Your task to perform on an android device: Go to notification settings Image 0: 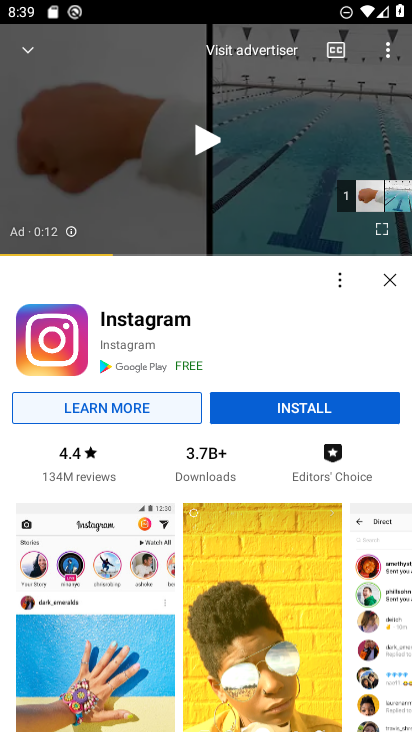
Step 0: drag from (224, 583) to (220, 371)
Your task to perform on an android device: Go to notification settings Image 1: 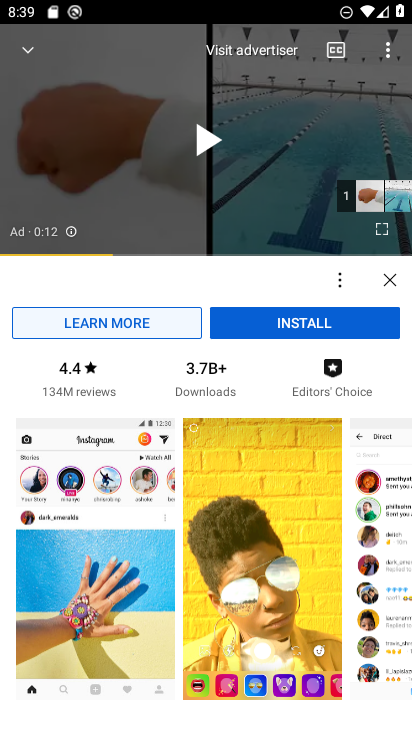
Step 1: press home button
Your task to perform on an android device: Go to notification settings Image 2: 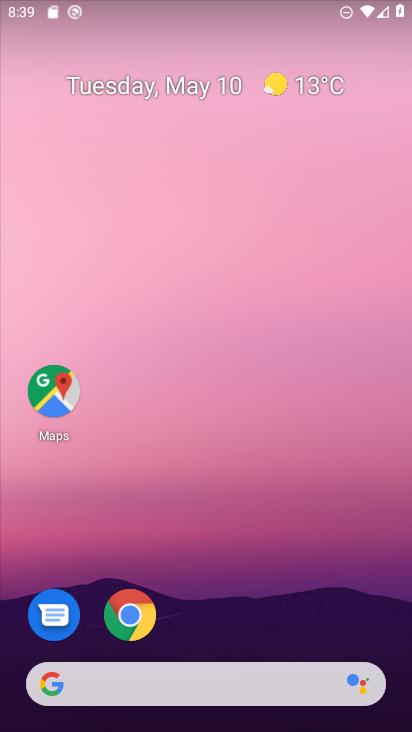
Step 2: drag from (210, 393) to (151, 74)
Your task to perform on an android device: Go to notification settings Image 3: 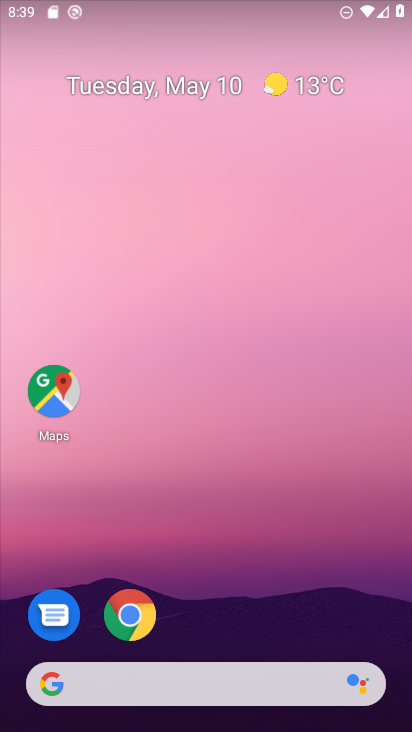
Step 3: drag from (171, 373) to (150, 29)
Your task to perform on an android device: Go to notification settings Image 4: 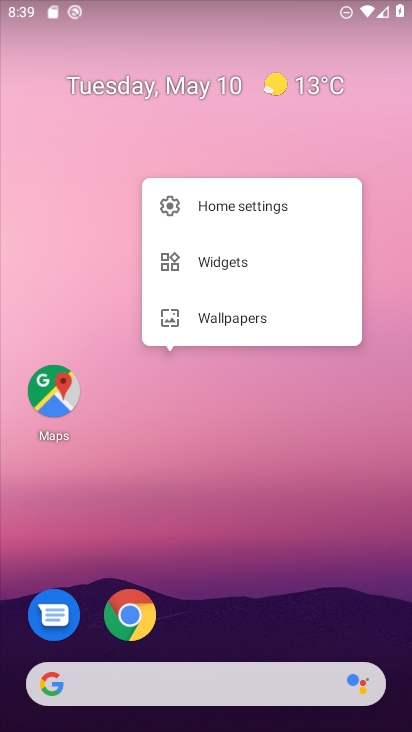
Step 4: click (171, 455)
Your task to perform on an android device: Go to notification settings Image 5: 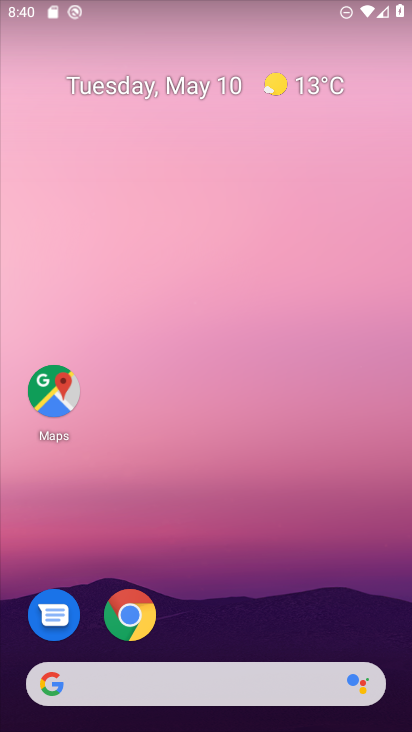
Step 5: drag from (316, 598) to (244, 13)
Your task to perform on an android device: Go to notification settings Image 6: 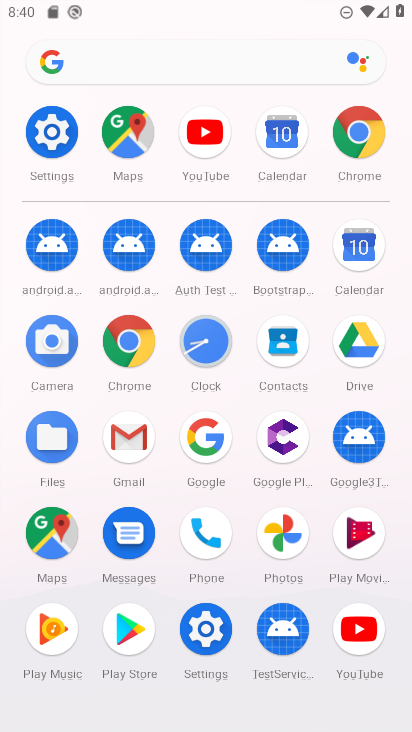
Step 6: click (42, 136)
Your task to perform on an android device: Go to notification settings Image 7: 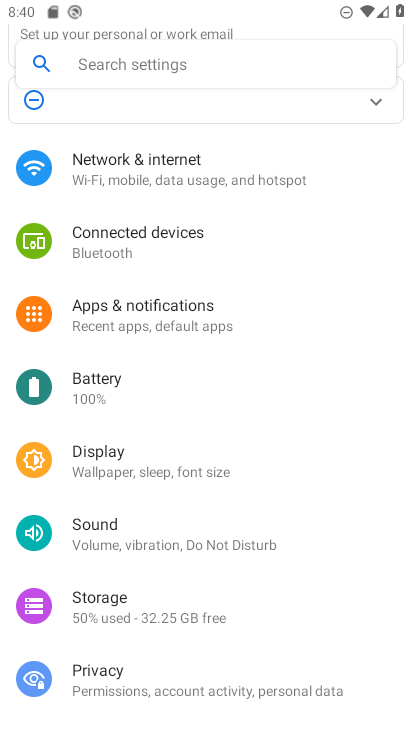
Step 7: click (168, 303)
Your task to perform on an android device: Go to notification settings Image 8: 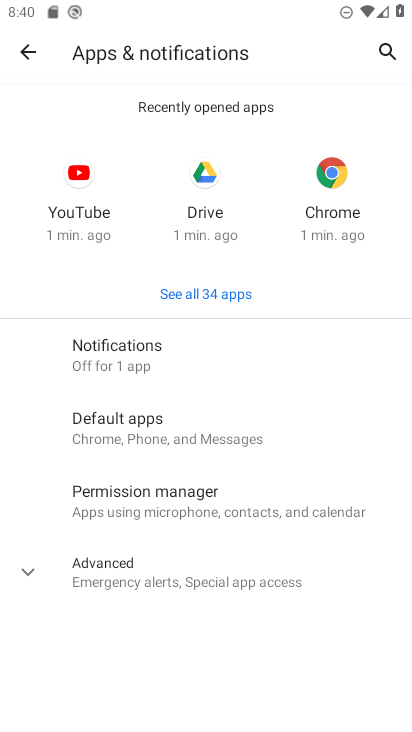
Step 8: click (106, 346)
Your task to perform on an android device: Go to notification settings Image 9: 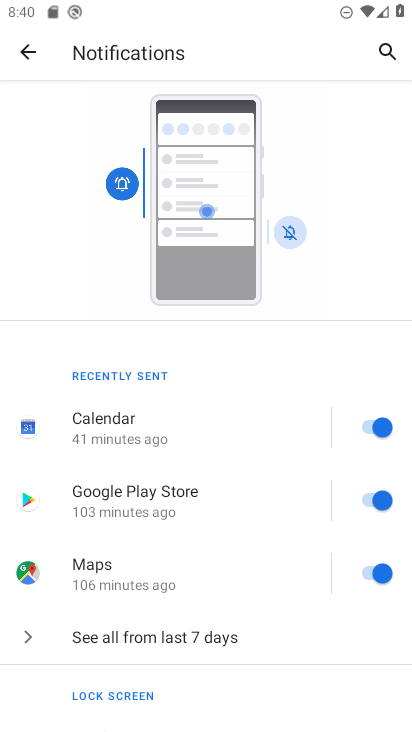
Step 9: task complete